Your task to perform on an android device: Go to Maps Image 0: 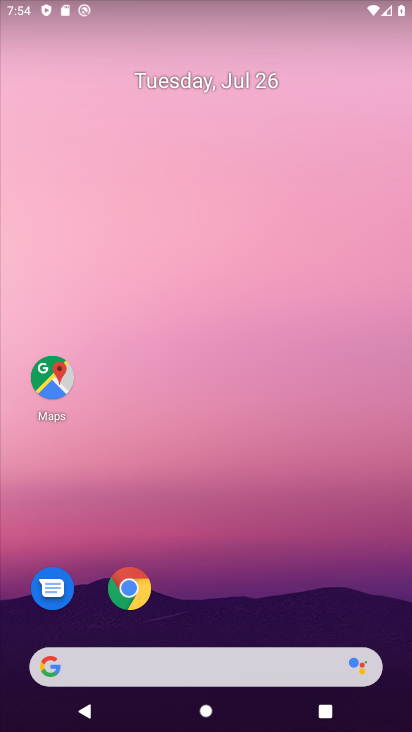
Step 0: drag from (223, 602) to (276, 154)
Your task to perform on an android device: Go to Maps Image 1: 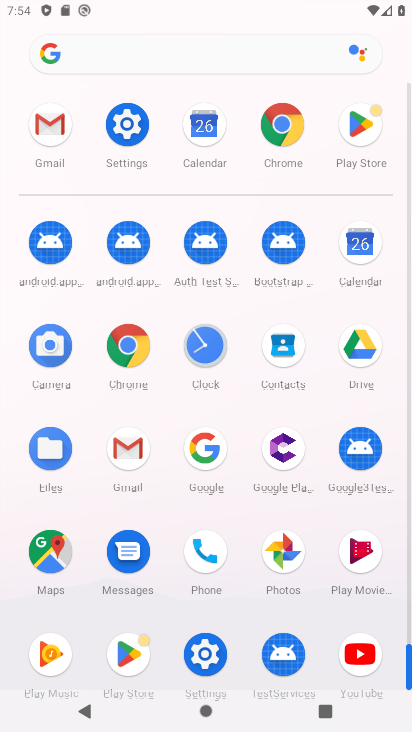
Step 1: click (41, 547)
Your task to perform on an android device: Go to Maps Image 2: 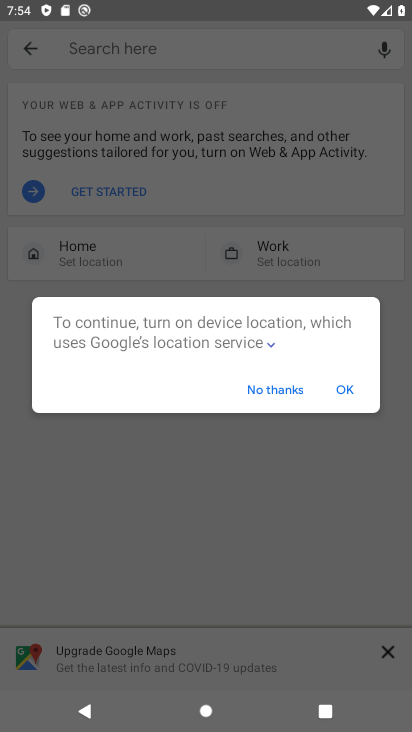
Step 2: task complete